Your task to perform on an android device: Open CNN.com Image 0: 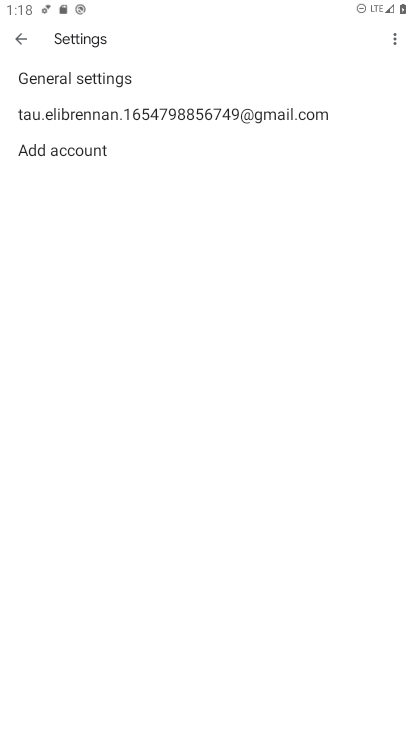
Step 0: press home button
Your task to perform on an android device: Open CNN.com Image 1: 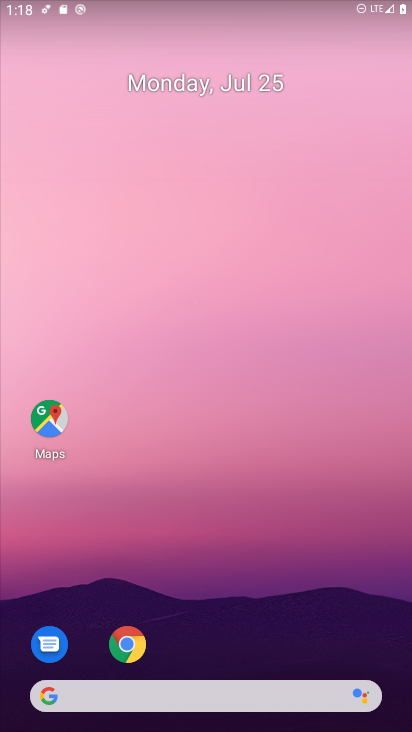
Step 1: drag from (211, 727) to (202, 171)
Your task to perform on an android device: Open CNN.com Image 2: 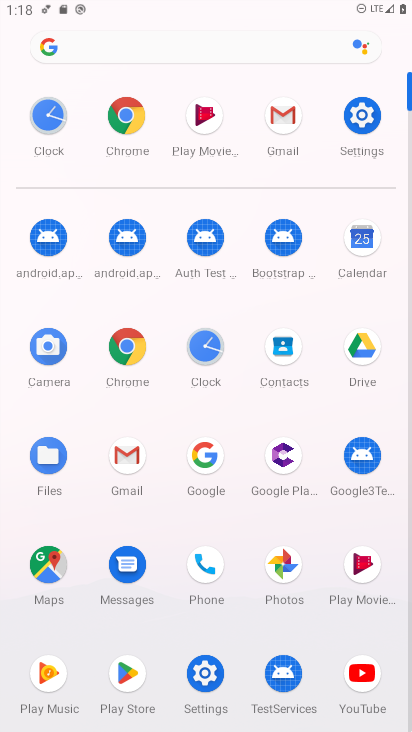
Step 2: click (128, 350)
Your task to perform on an android device: Open CNN.com Image 3: 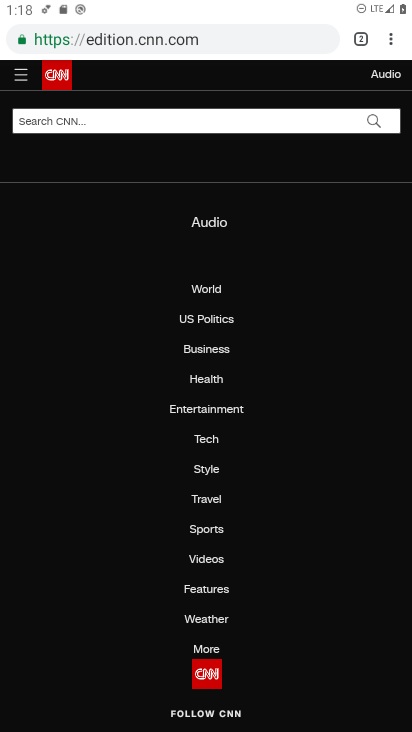
Step 3: task complete